Your task to perform on an android device: Google the capital of Peru Image 0: 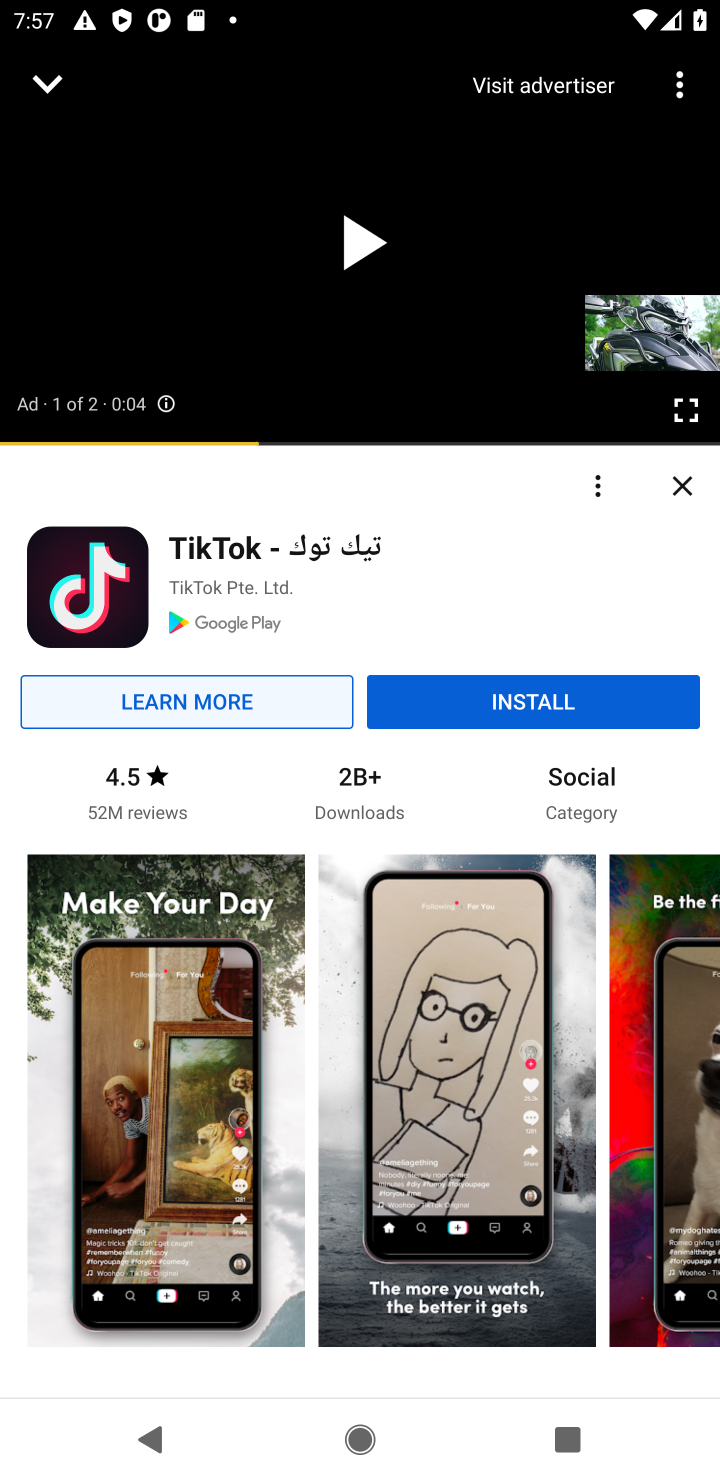
Step 0: press home button
Your task to perform on an android device: Google the capital of Peru Image 1: 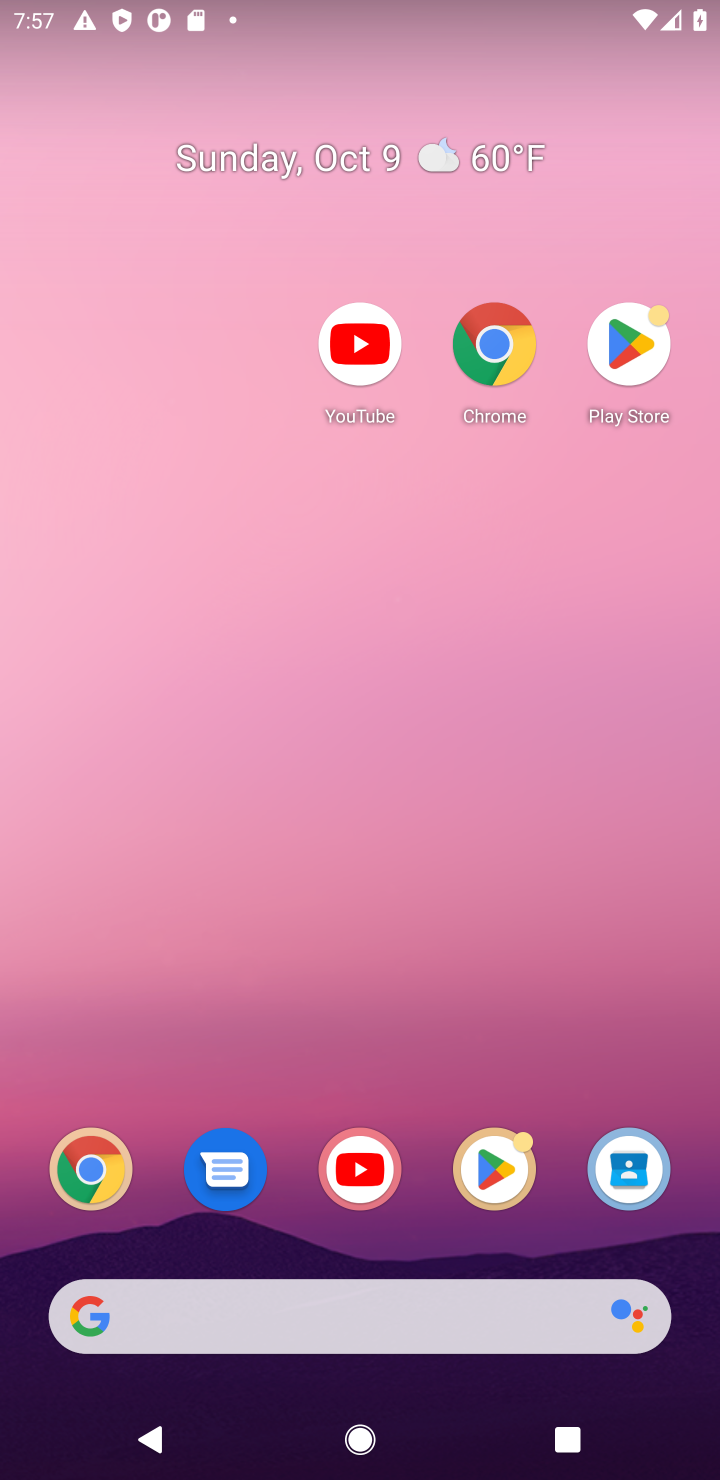
Step 1: click (430, 1266)
Your task to perform on an android device: Google the capital of Peru Image 2: 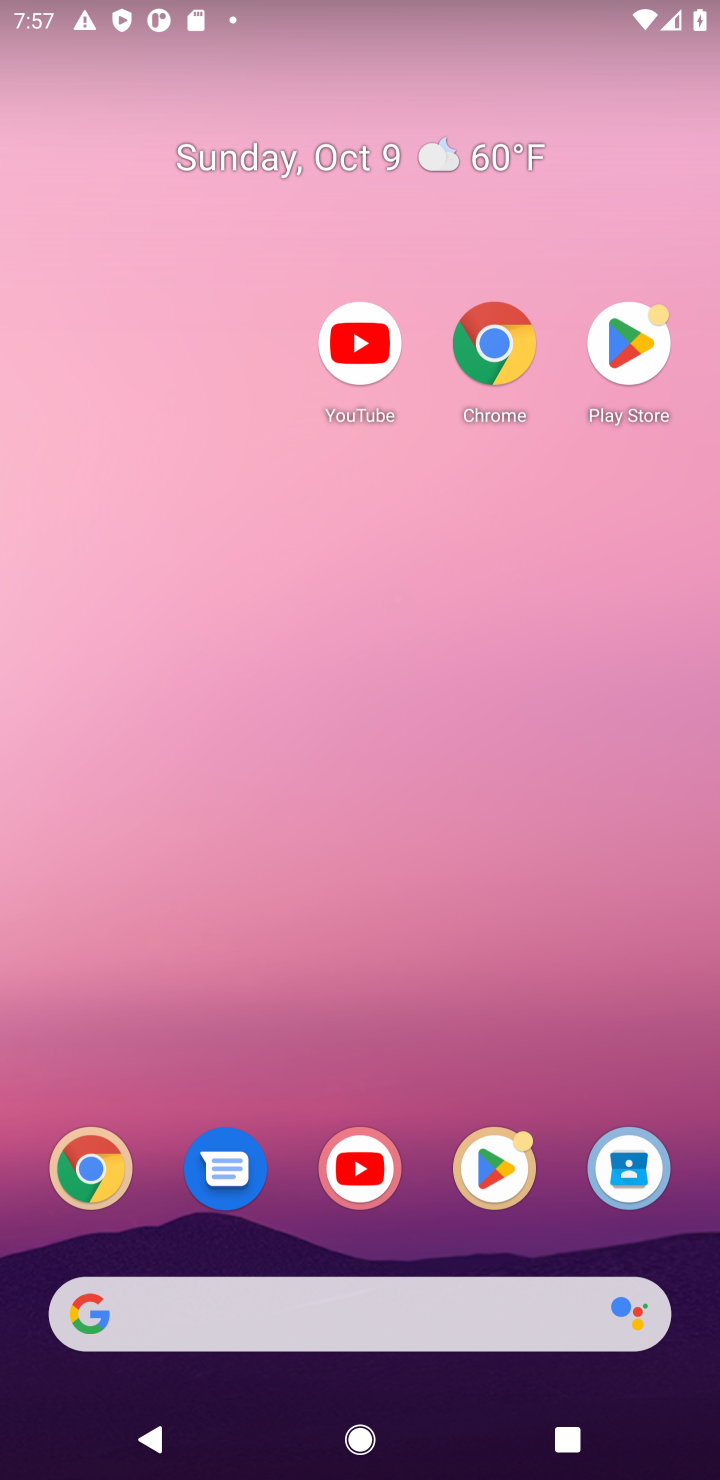
Step 2: click (410, 1298)
Your task to perform on an android device: Google the capital of Peru Image 3: 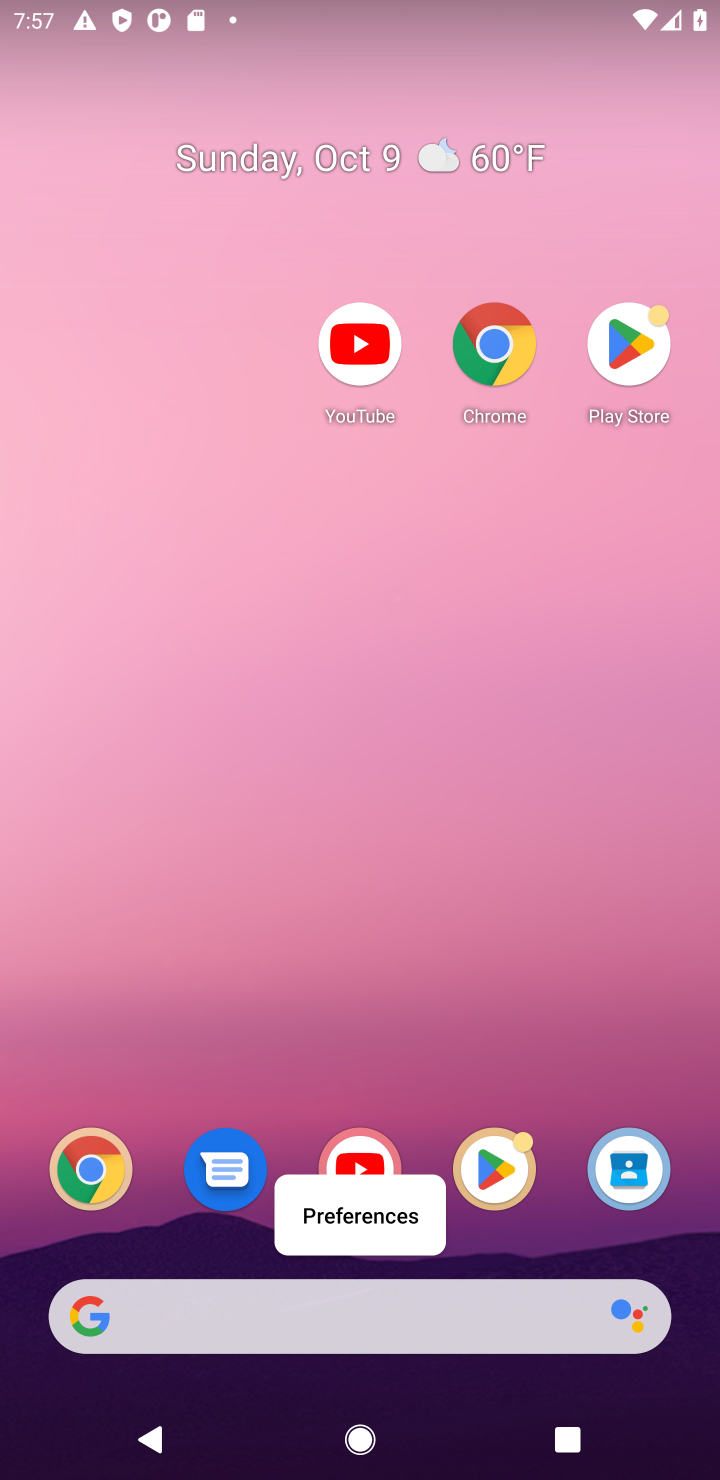
Step 3: click (244, 1322)
Your task to perform on an android device: Google the capital of Peru Image 4: 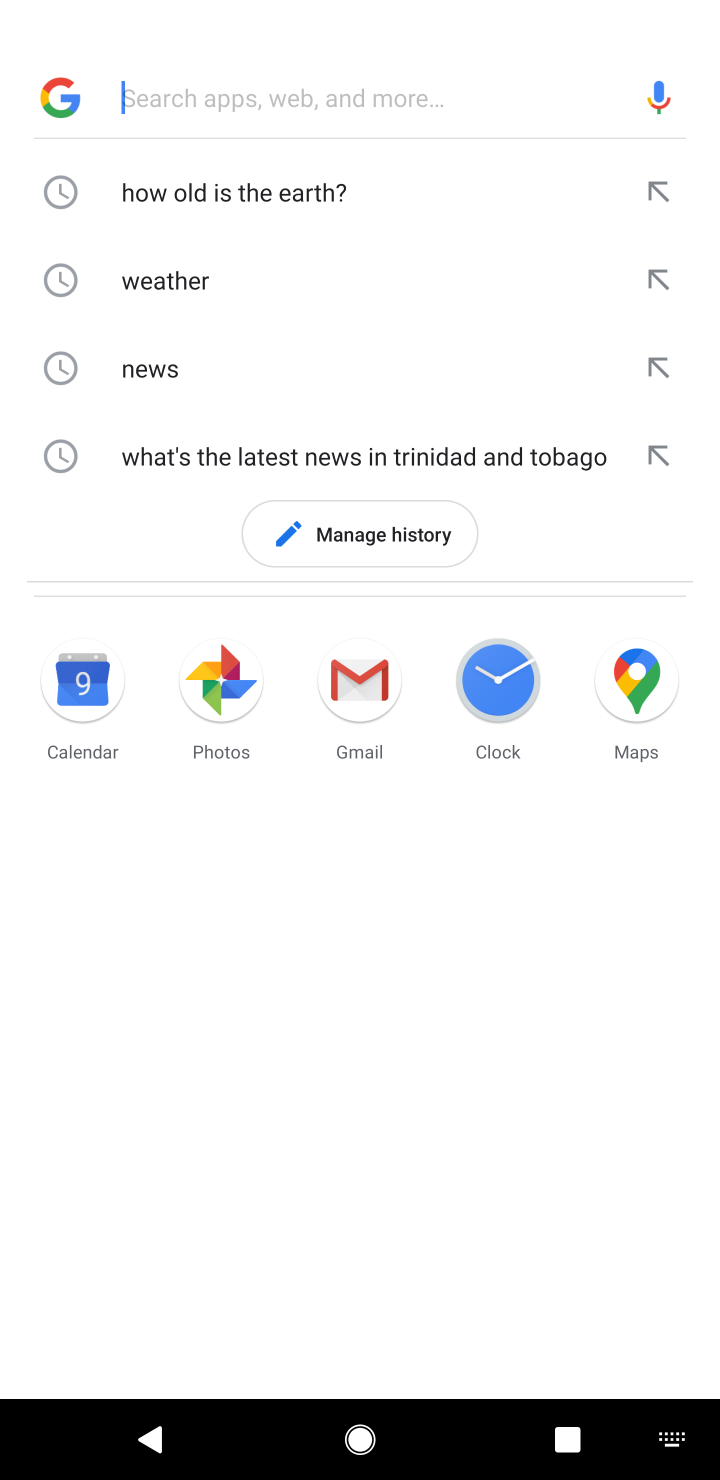
Step 4: type "the capital o Peru"
Your task to perform on an android device: Google the capital of Peru Image 5: 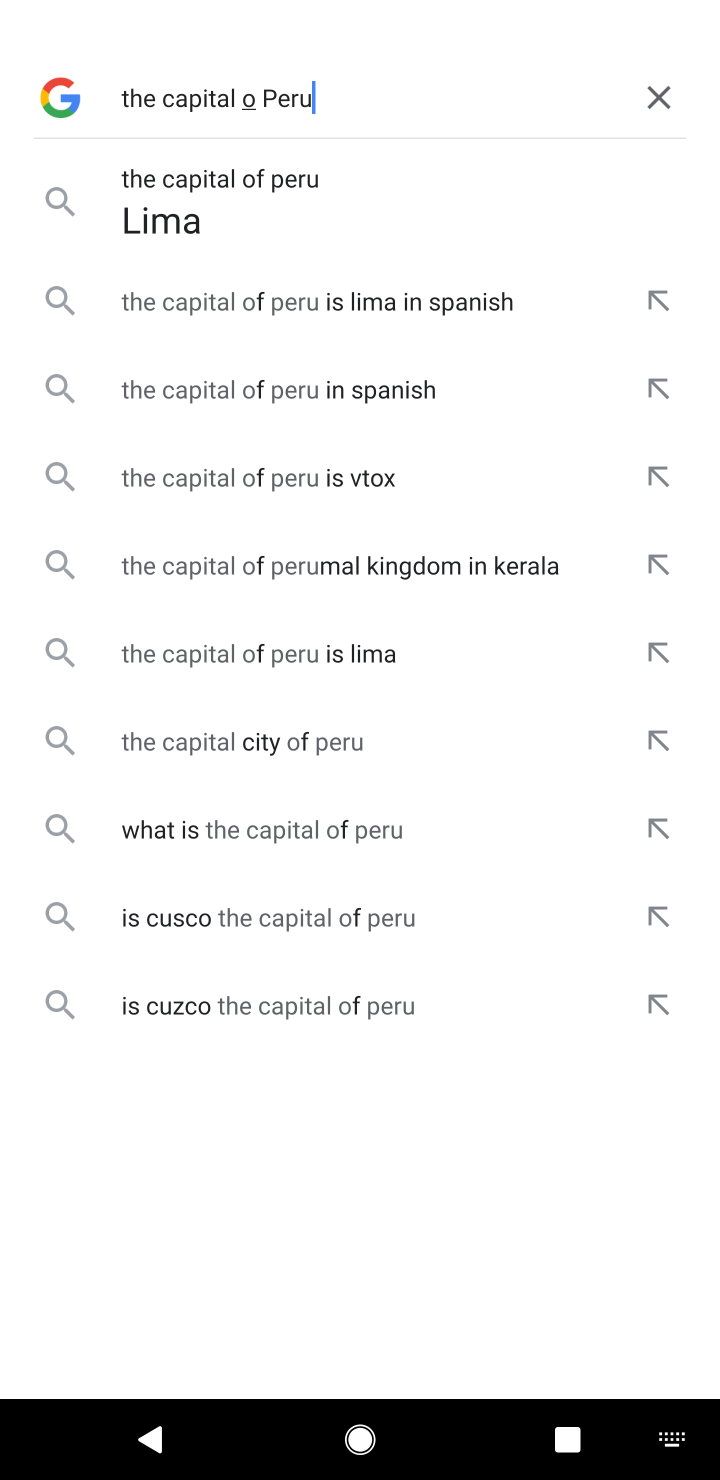
Step 5: press enter
Your task to perform on an android device: Google the capital of Peru Image 6: 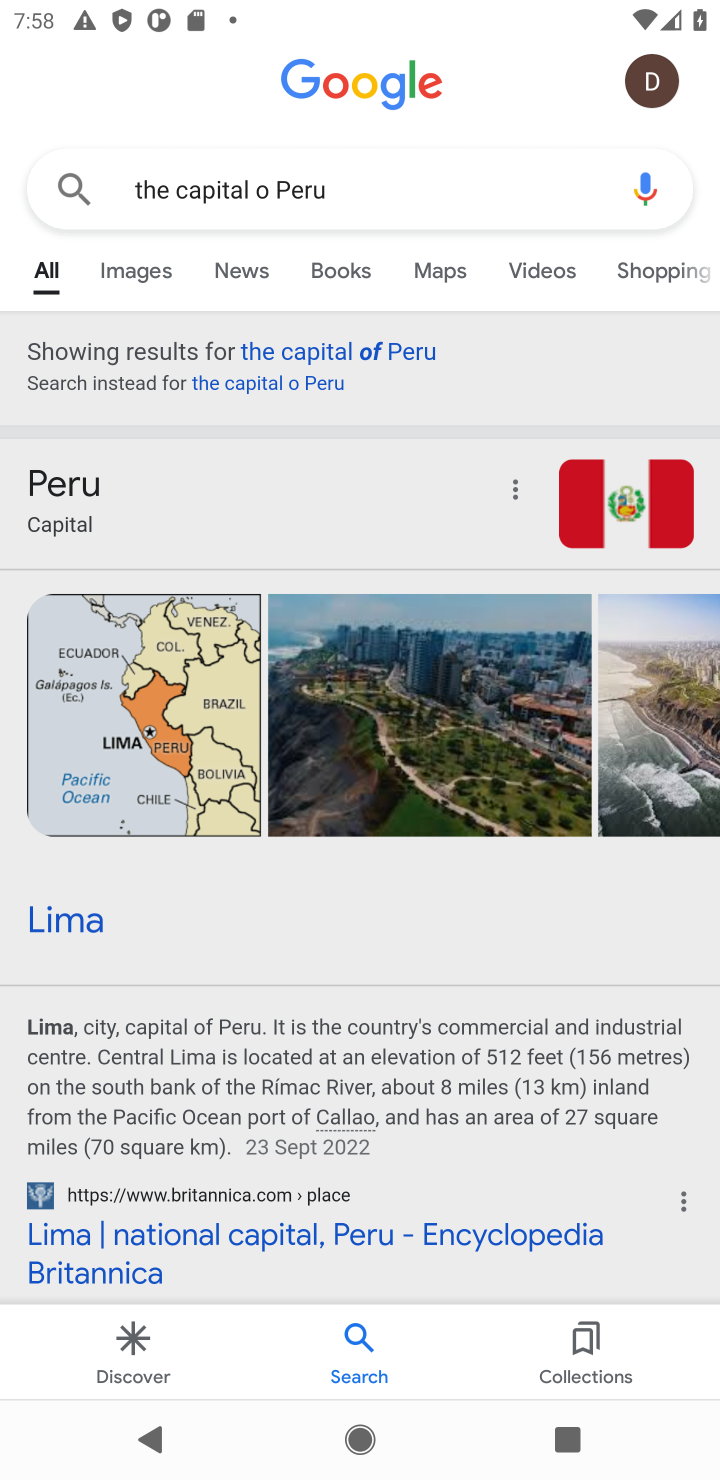
Step 6: task complete